Your task to perform on an android device: toggle data saver in the chrome app Image 0: 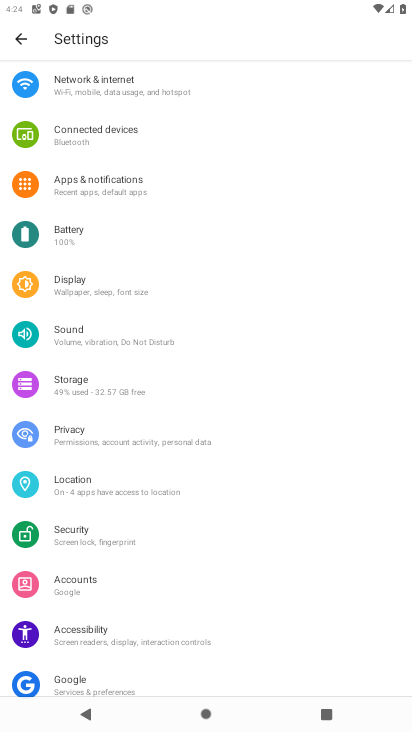
Step 0: press home button
Your task to perform on an android device: toggle data saver in the chrome app Image 1: 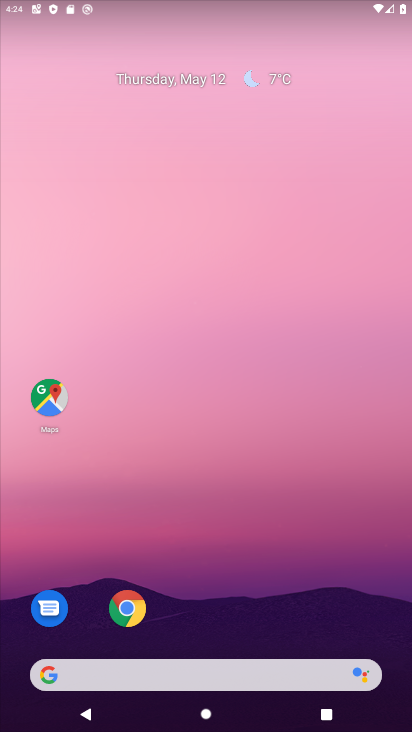
Step 1: click (127, 610)
Your task to perform on an android device: toggle data saver in the chrome app Image 2: 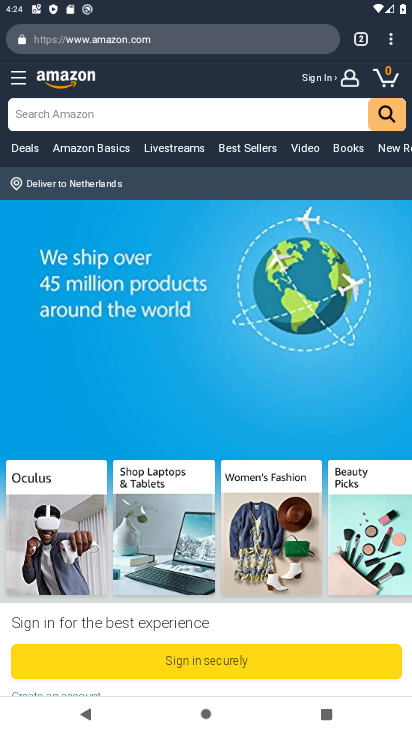
Step 2: click (394, 30)
Your task to perform on an android device: toggle data saver in the chrome app Image 3: 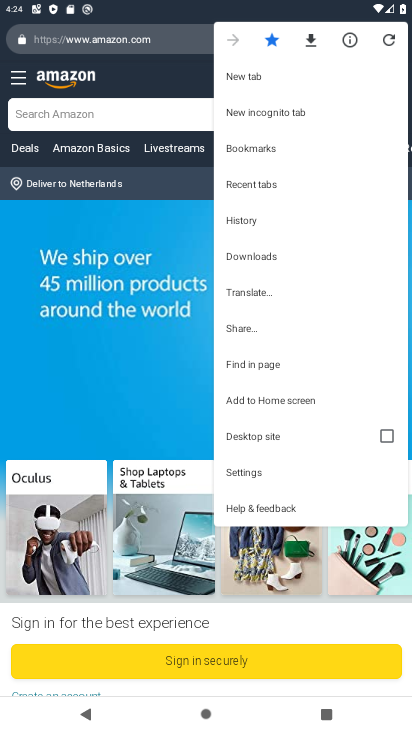
Step 3: click (270, 474)
Your task to perform on an android device: toggle data saver in the chrome app Image 4: 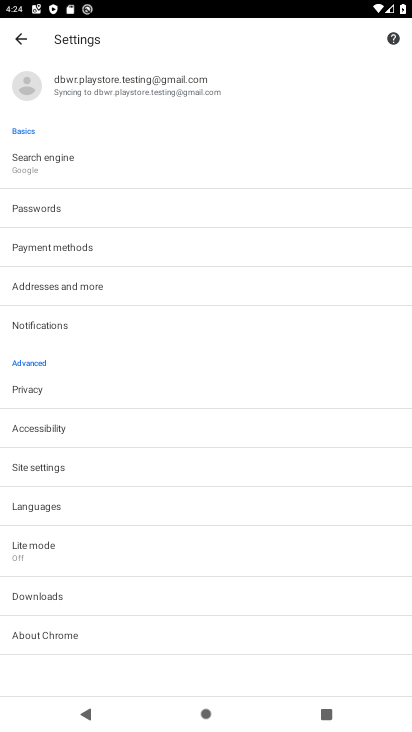
Step 4: click (71, 541)
Your task to perform on an android device: toggle data saver in the chrome app Image 5: 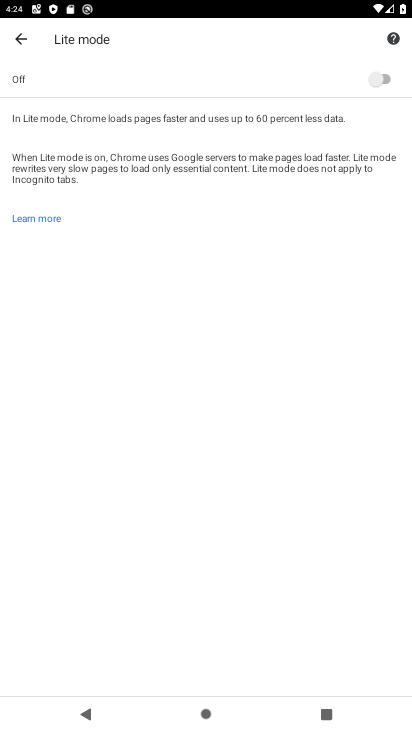
Step 5: click (372, 76)
Your task to perform on an android device: toggle data saver in the chrome app Image 6: 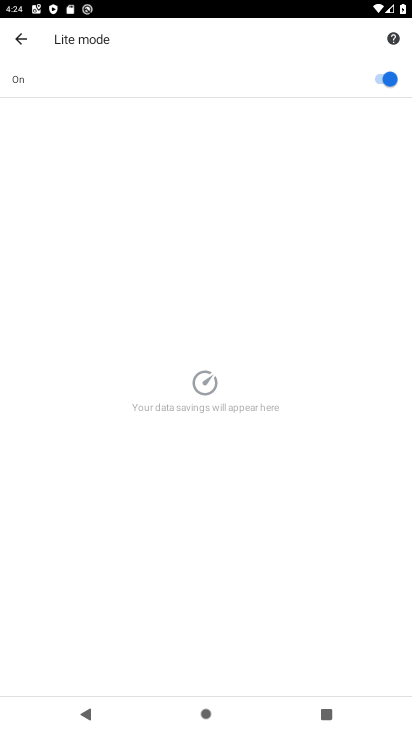
Step 6: click (372, 76)
Your task to perform on an android device: toggle data saver in the chrome app Image 7: 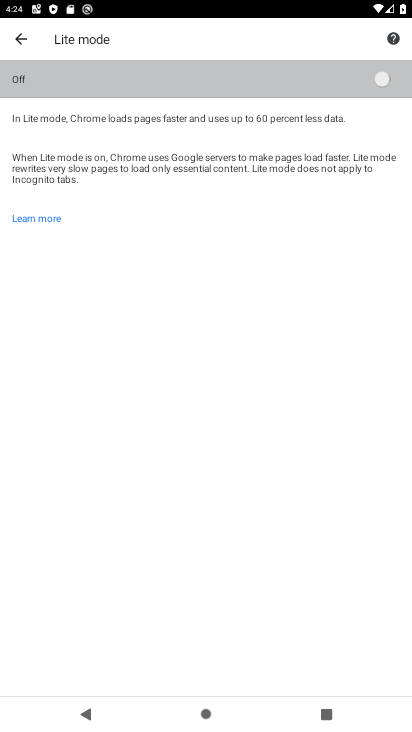
Step 7: click (372, 76)
Your task to perform on an android device: toggle data saver in the chrome app Image 8: 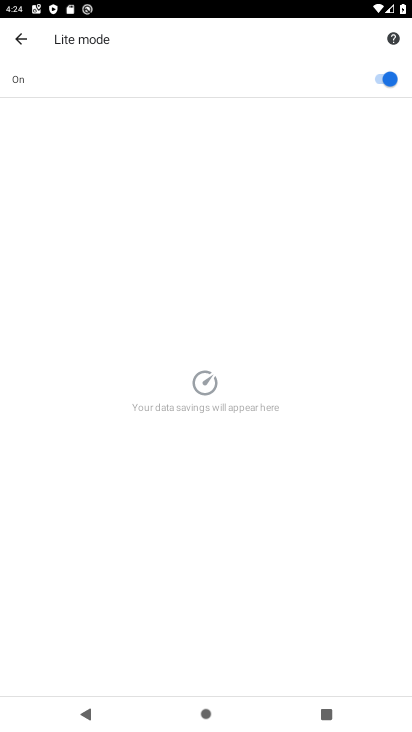
Step 8: task complete